Your task to perform on an android device: Install the Starbucks app Image 0: 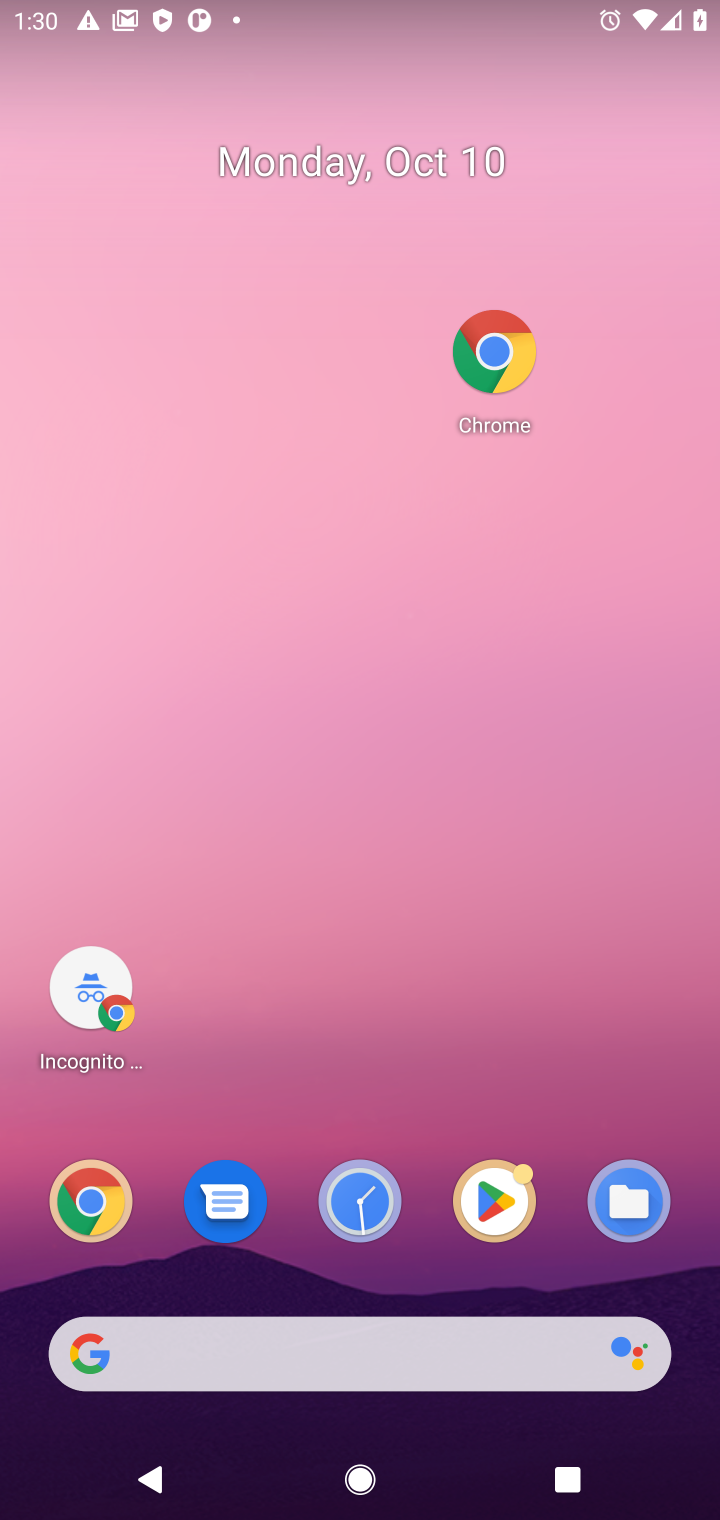
Step 0: click (511, 1214)
Your task to perform on an android device: Install the Starbucks app Image 1: 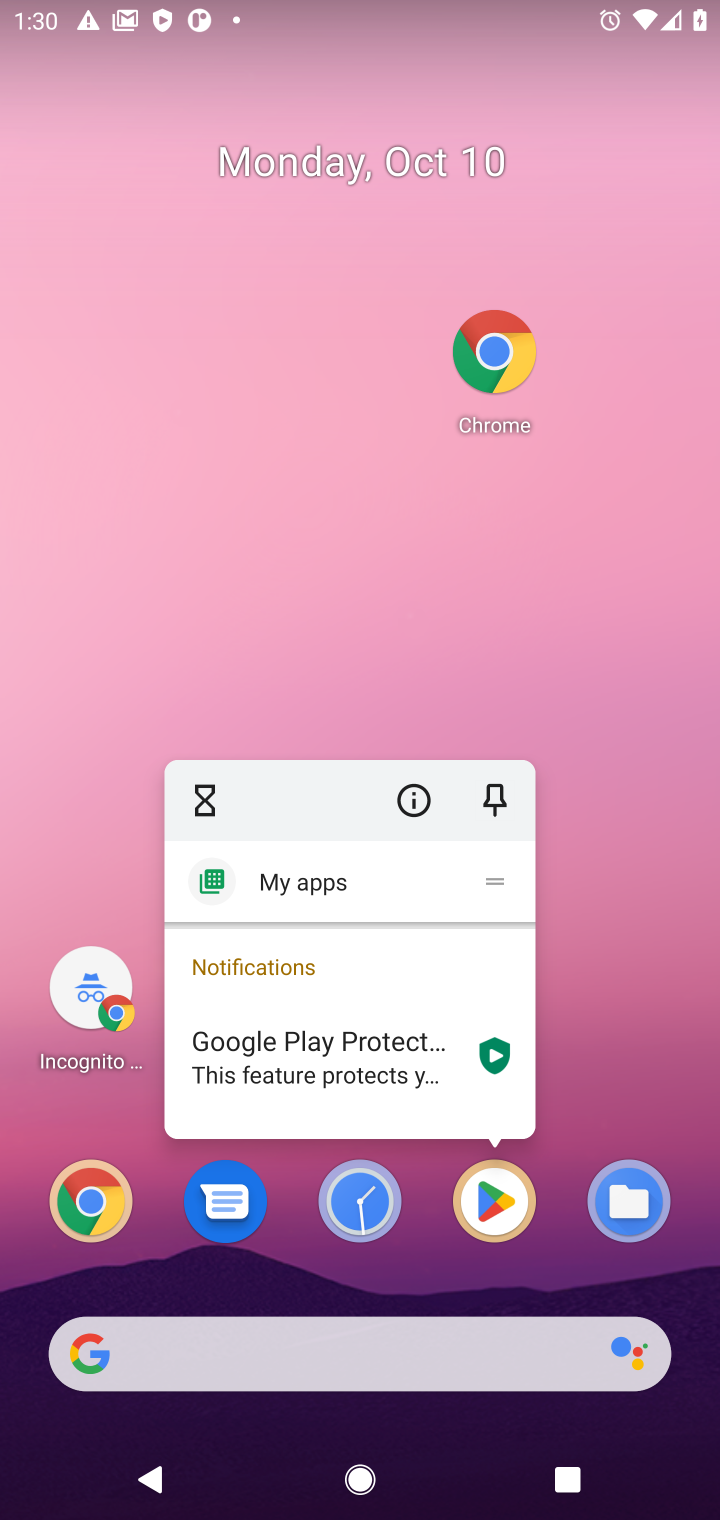
Step 1: click (498, 1195)
Your task to perform on an android device: Install the Starbucks app Image 2: 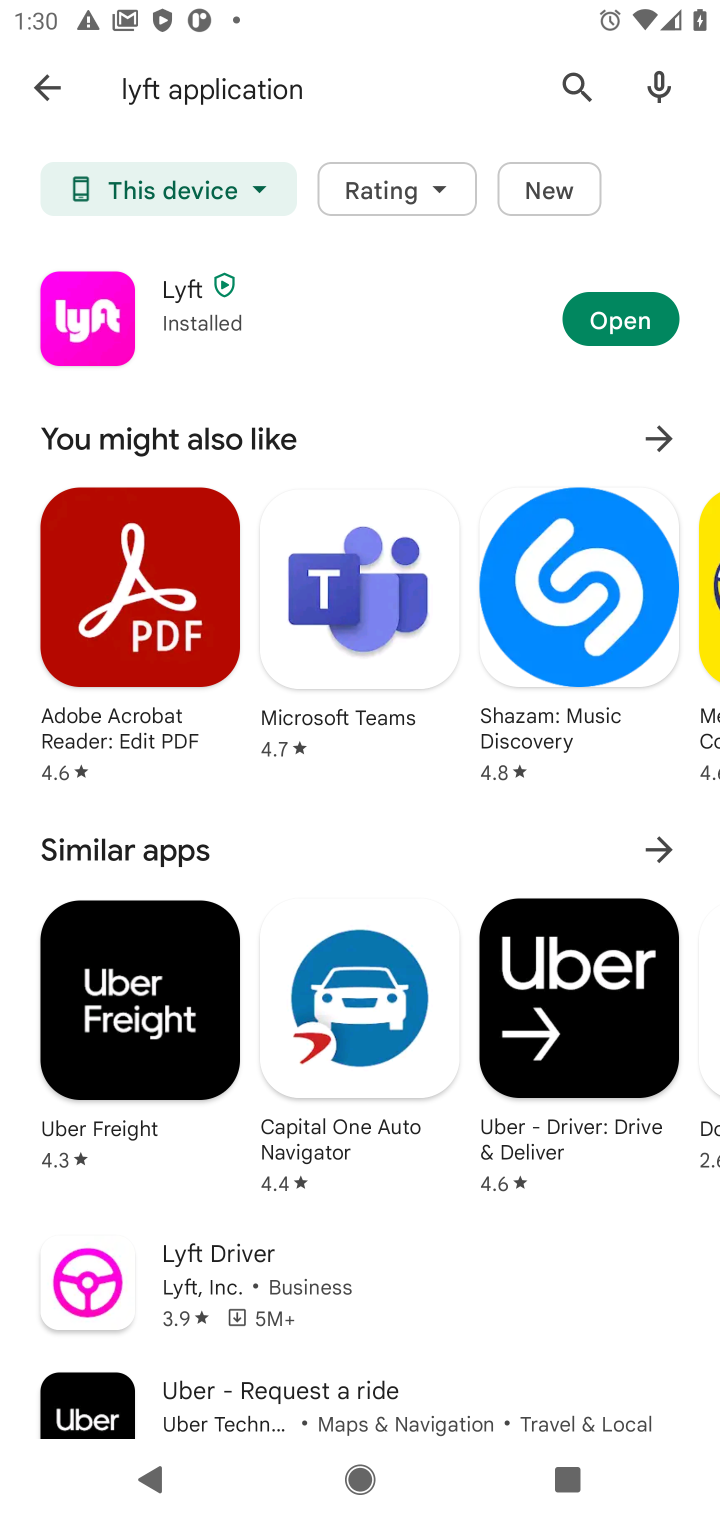
Step 2: click (575, 93)
Your task to perform on an android device: Install the Starbucks app Image 3: 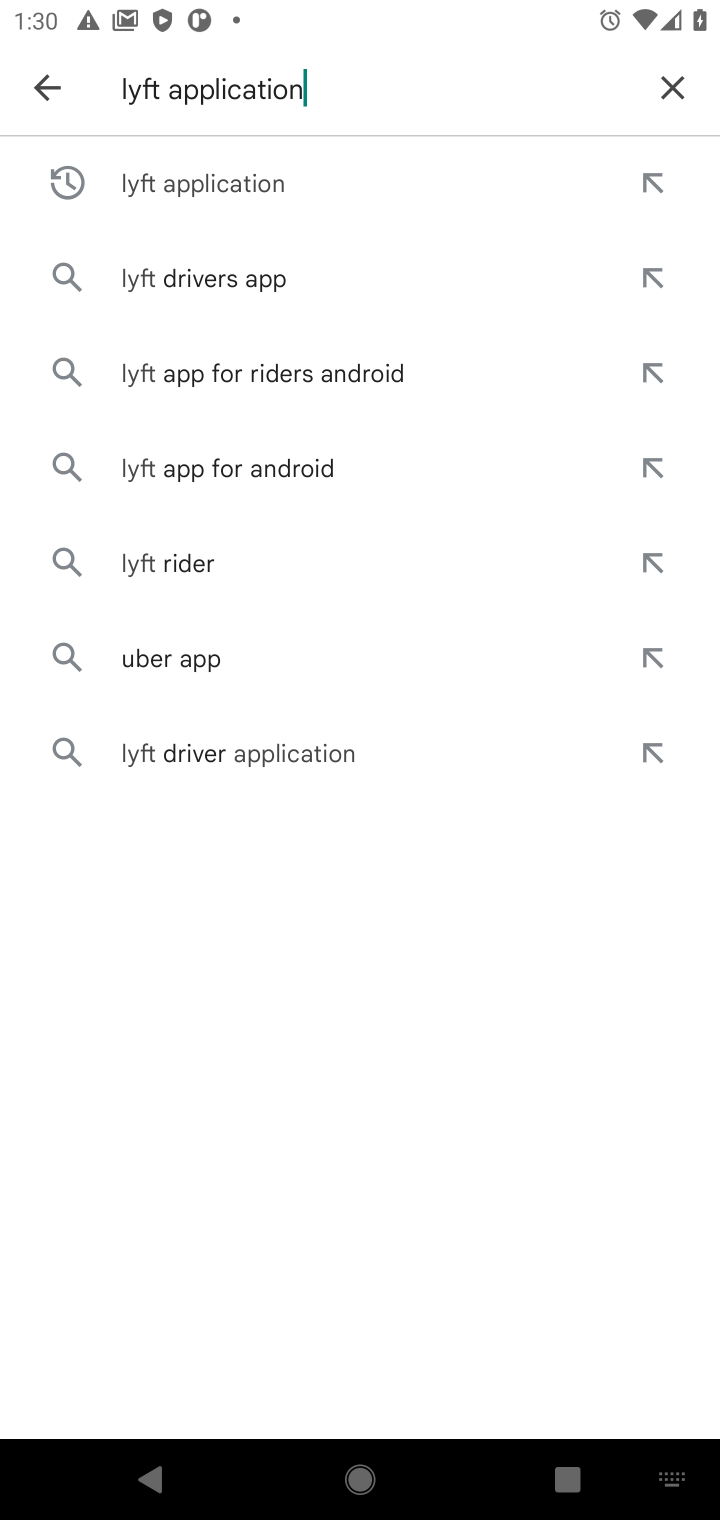
Step 3: click (681, 92)
Your task to perform on an android device: Install the Starbucks app Image 4: 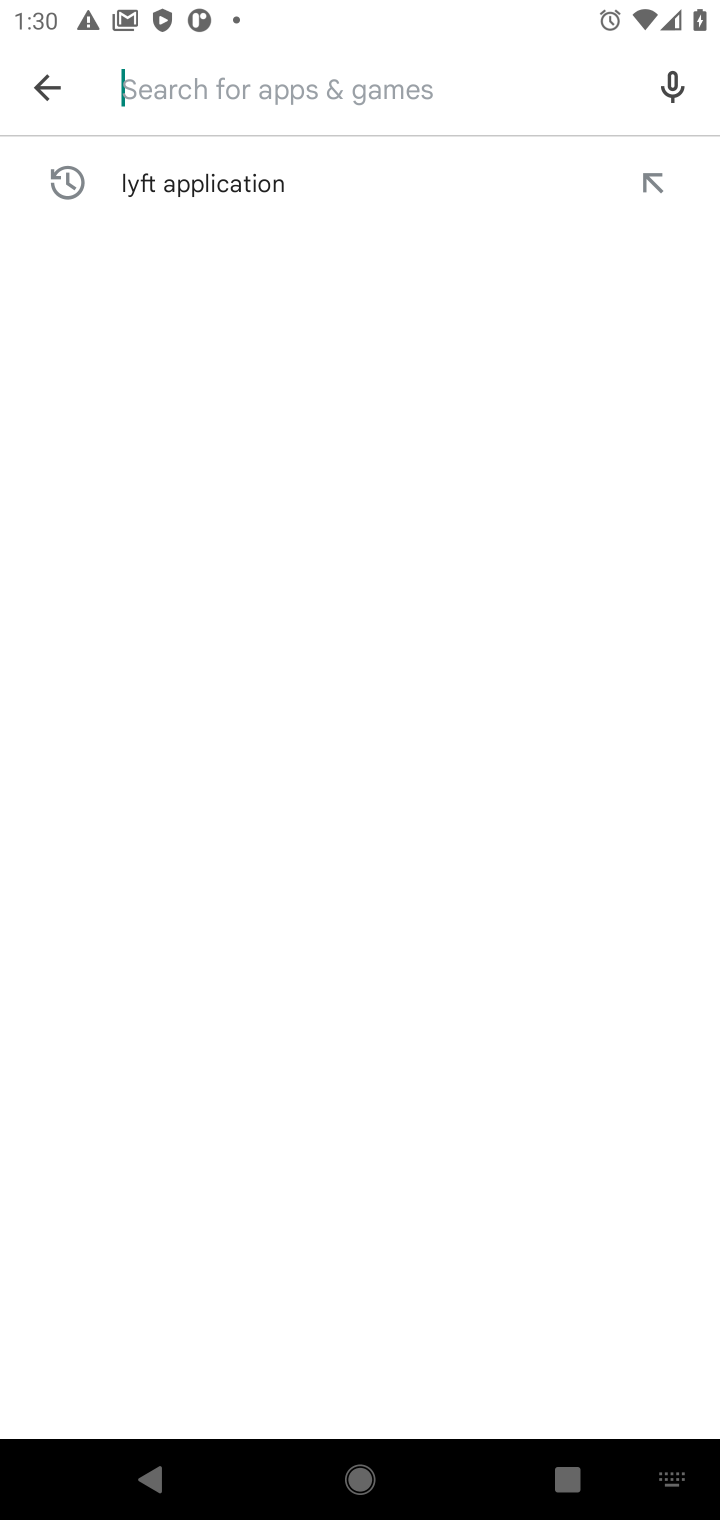
Step 4: type "starbucks app"
Your task to perform on an android device: Install the Starbucks app Image 5: 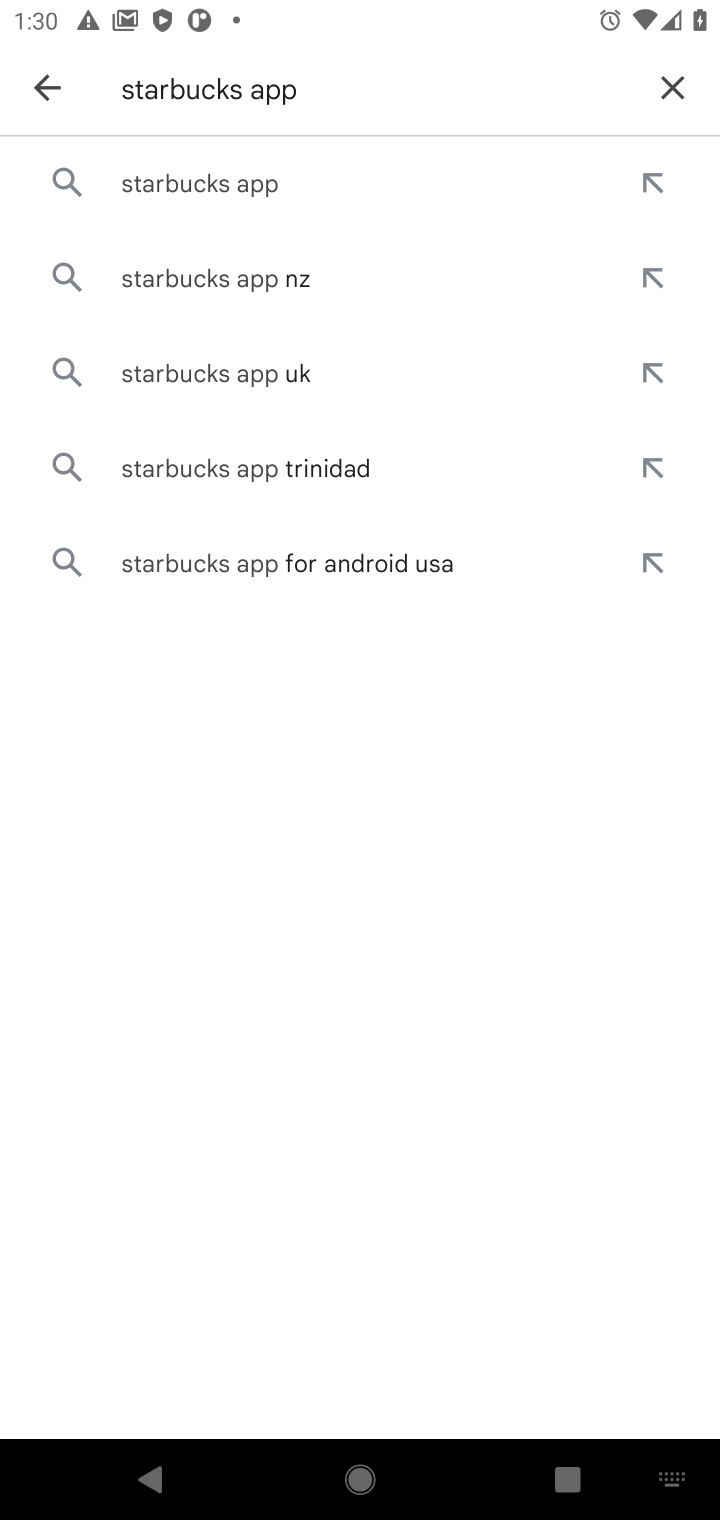
Step 5: click (161, 200)
Your task to perform on an android device: Install the Starbucks app Image 6: 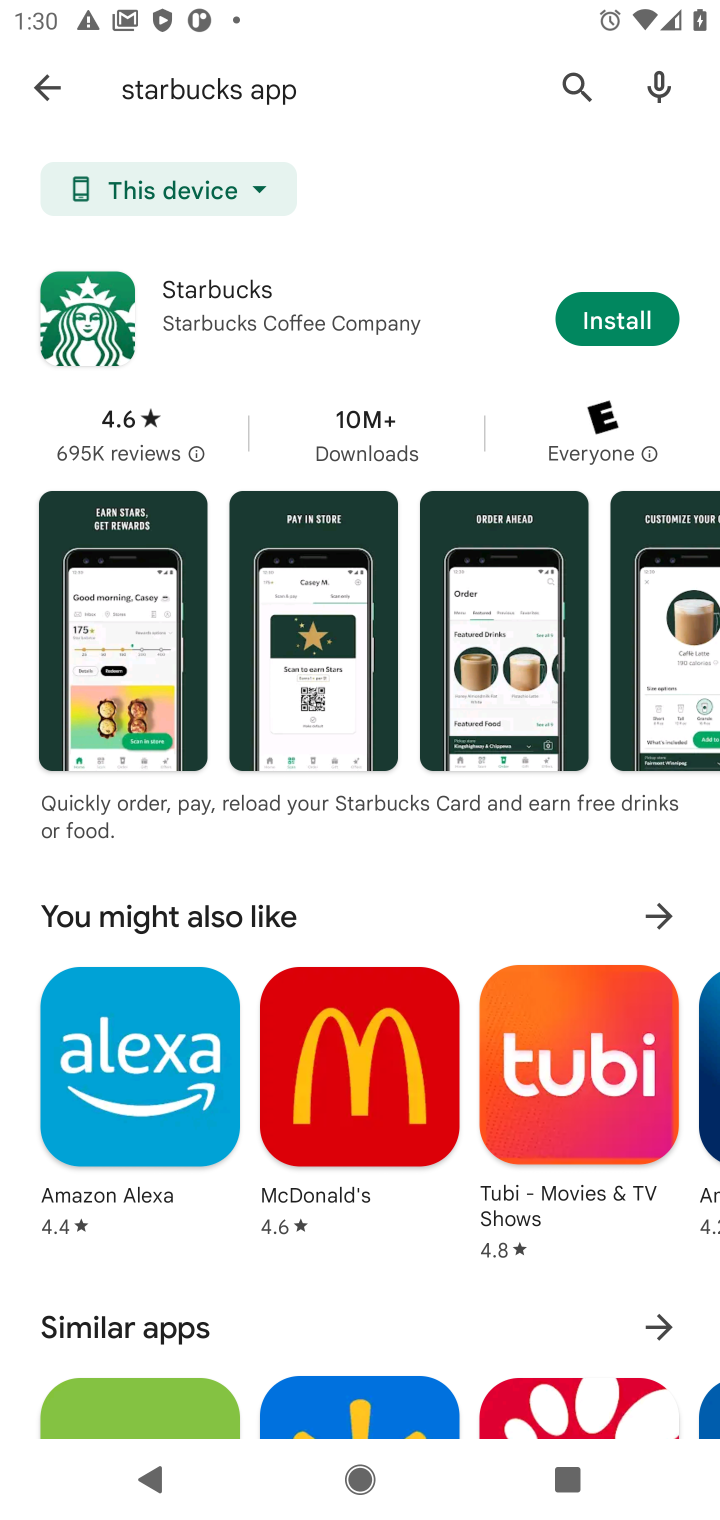
Step 6: click (595, 326)
Your task to perform on an android device: Install the Starbucks app Image 7: 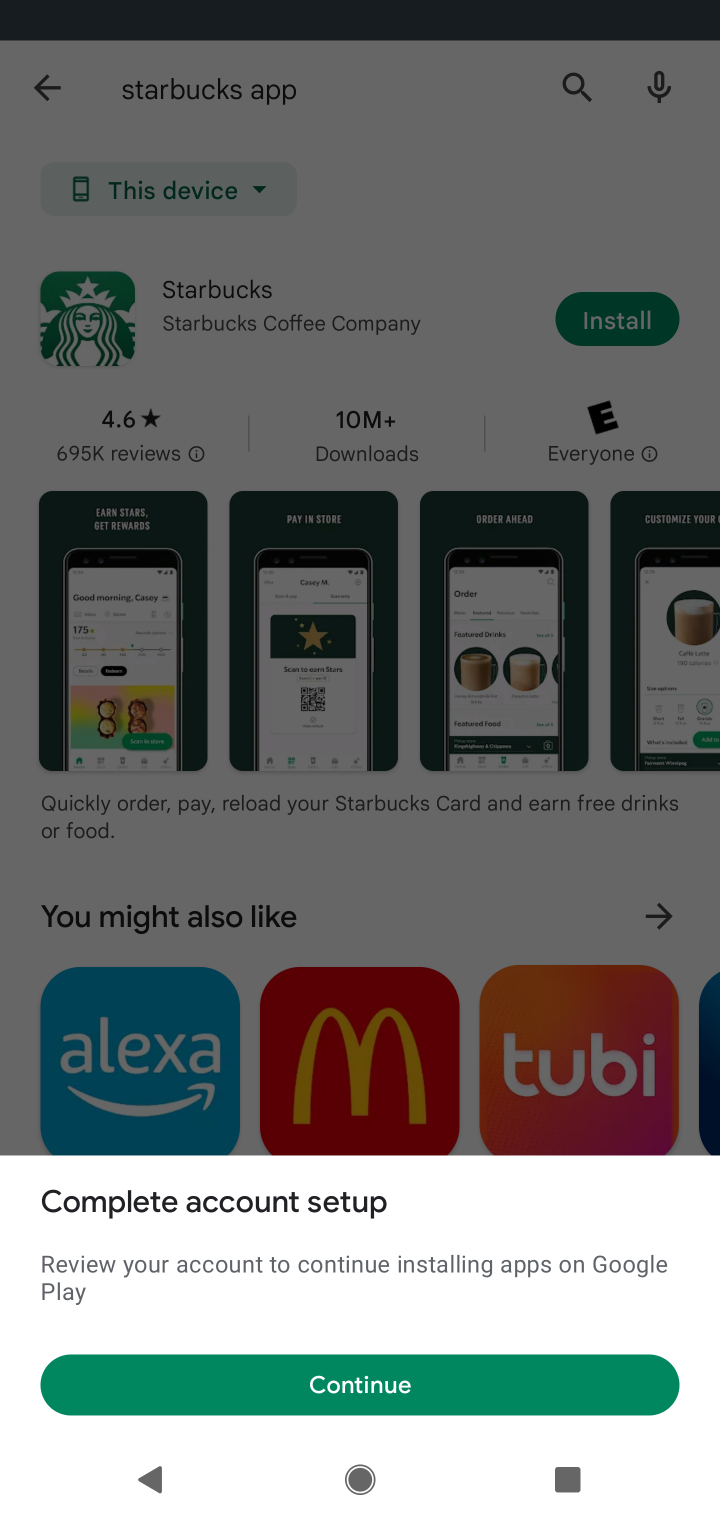
Step 7: click (271, 1371)
Your task to perform on an android device: Install the Starbucks app Image 8: 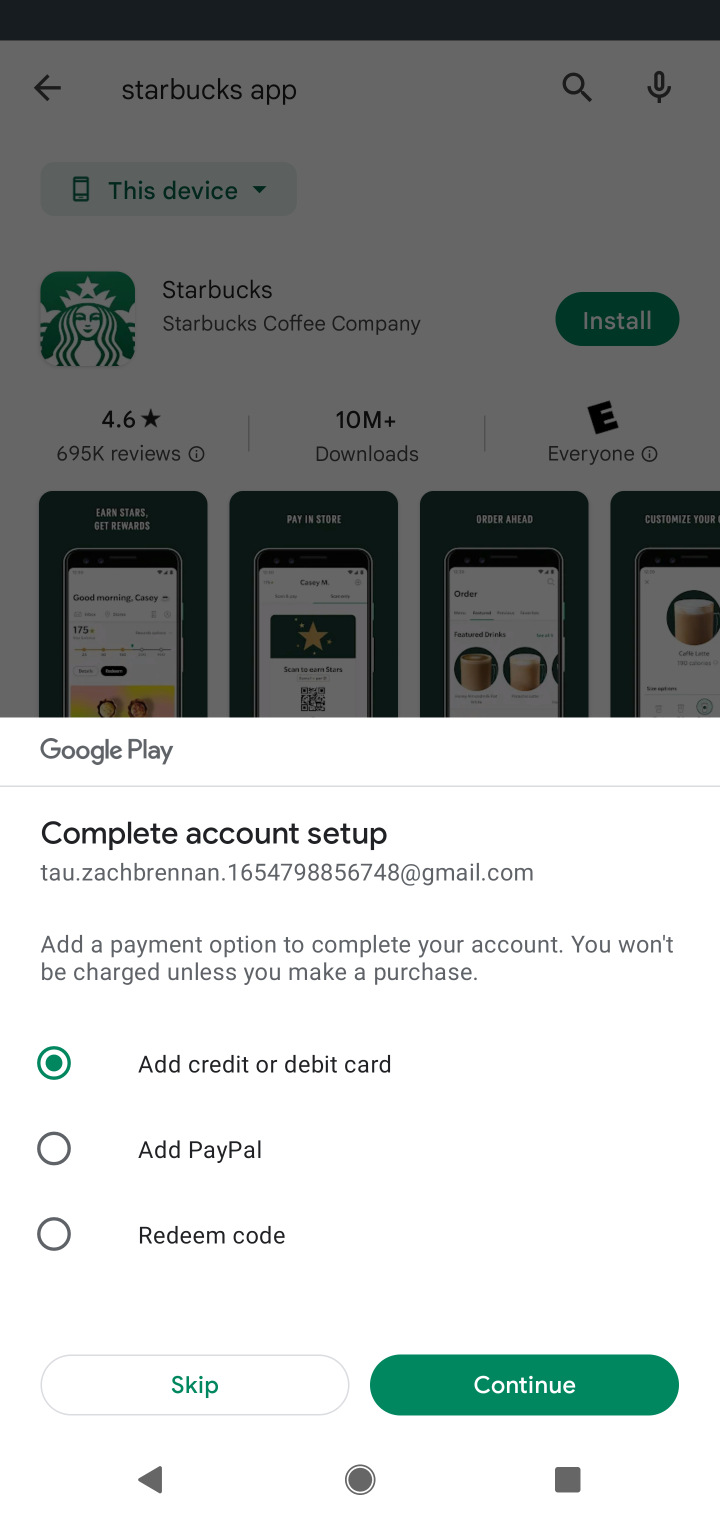
Step 8: click (192, 1382)
Your task to perform on an android device: Install the Starbucks app Image 9: 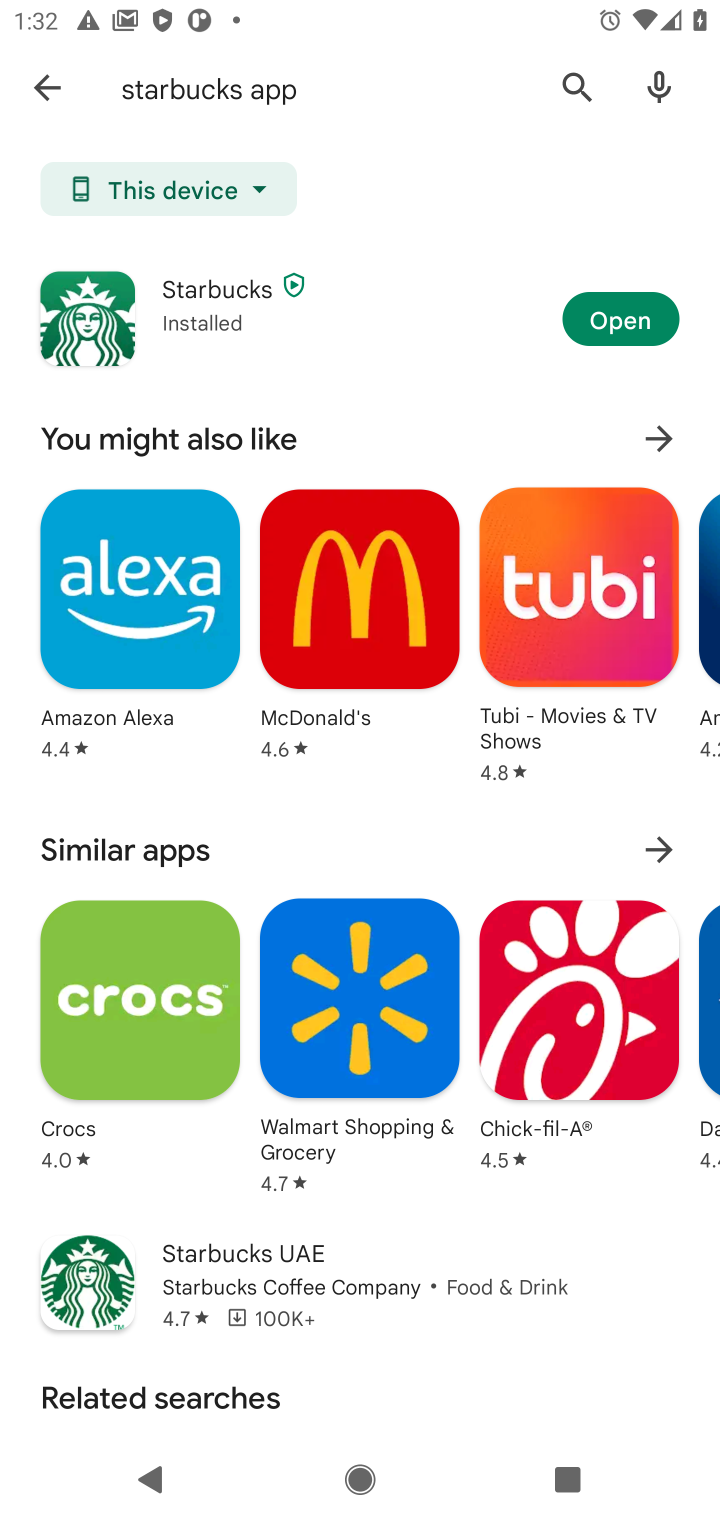
Step 9: task complete